Your task to perform on an android device: toggle location history Image 0: 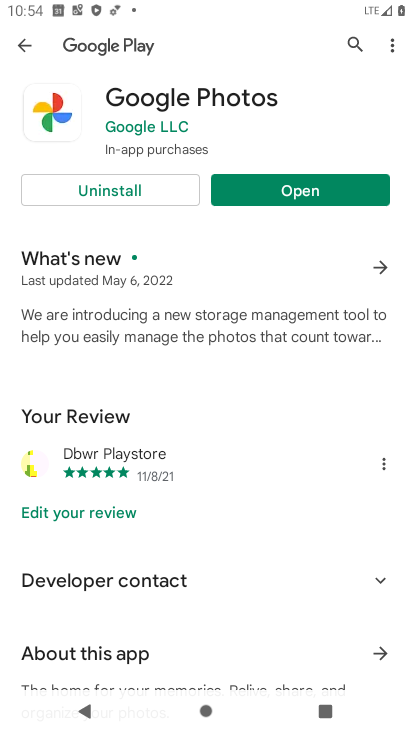
Step 0: press home button
Your task to perform on an android device: toggle location history Image 1: 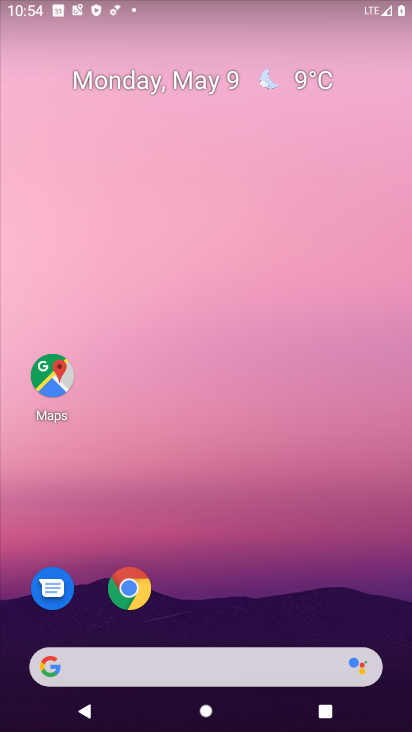
Step 1: drag from (177, 658) to (222, 151)
Your task to perform on an android device: toggle location history Image 2: 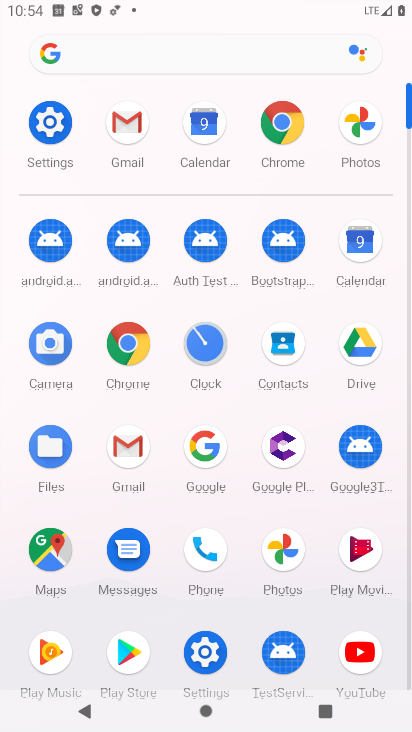
Step 2: click (50, 556)
Your task to perform on an android device: toggle location history Image 3: 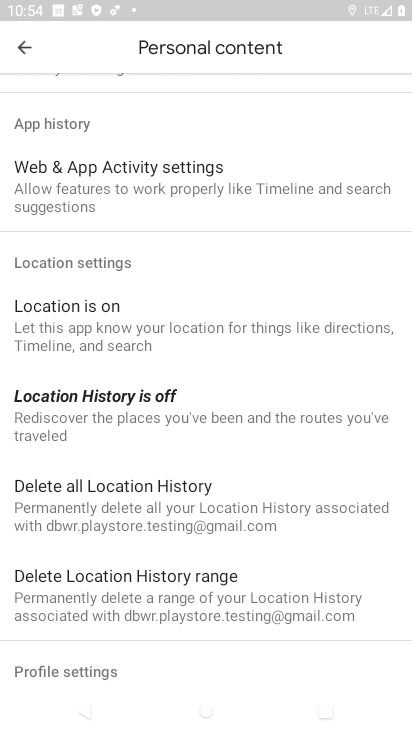
Step 3: click (156, 416)
Your task to perform on an android device: toggle location history Image 4: 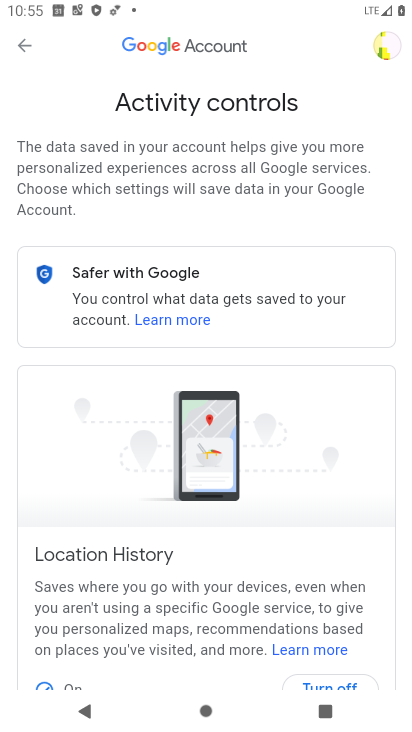
Step 4: drag from (223, 625) to (264, 256)
Your task to perform on an android device: toggle location history Image 5: 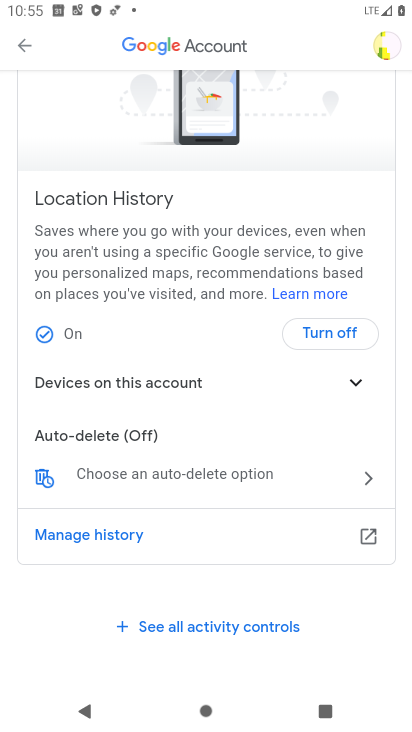
Step 5: click (328, 333)
Your task to perform on an android device: toggle location history Image 6: 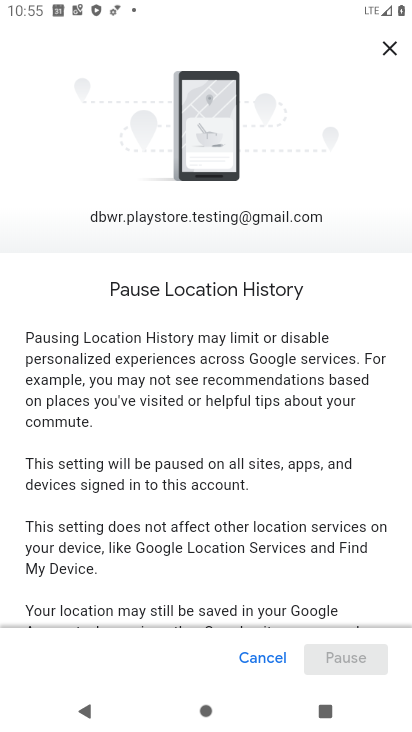
Step 6: drag from (255, 554) to (372, 126)
Your task to perform on an android device: toggle location history Image 7: 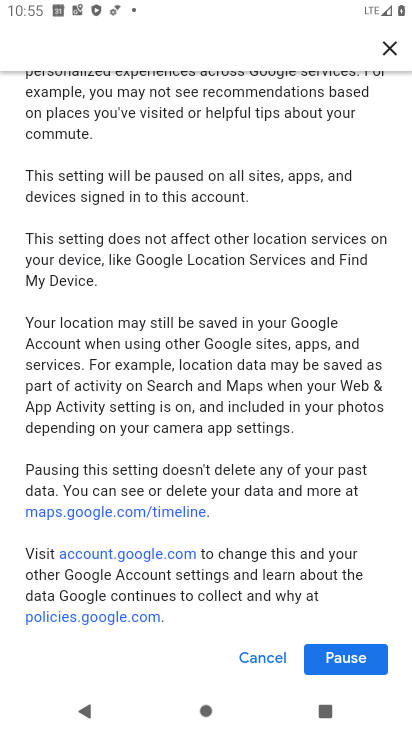
Step 7: click (353, 656)
Your task to perform on an android device: toggle location history Image 8: 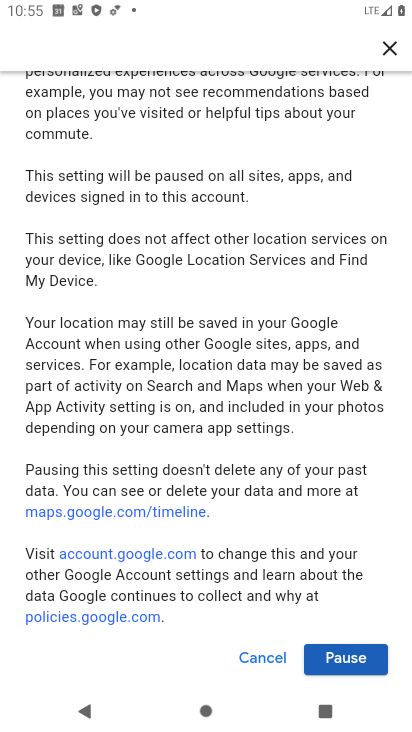
Step 8: click (356, 663)
Your task to perform on an android device: toggle location history Image 9: 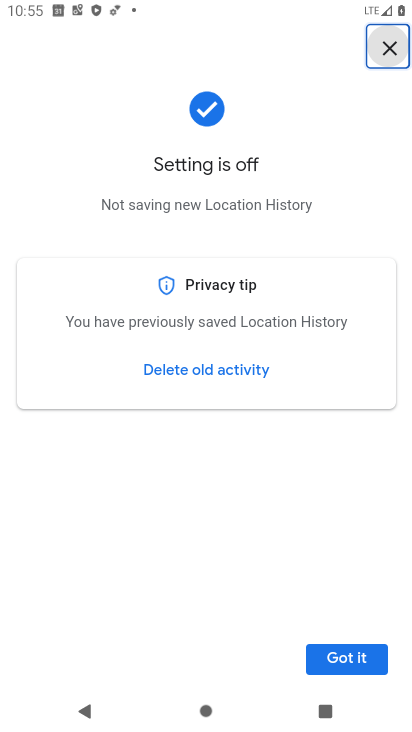
Step 9: task complete